Your task to perform on an android device: set an alarm Image 0: 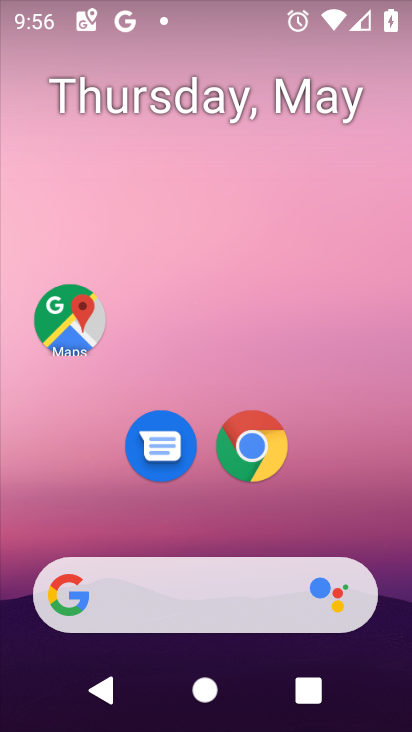
Step 0: drag from (362, 524) to (318, 198)
Your task to perform on an android device: set an alarm Image 1: 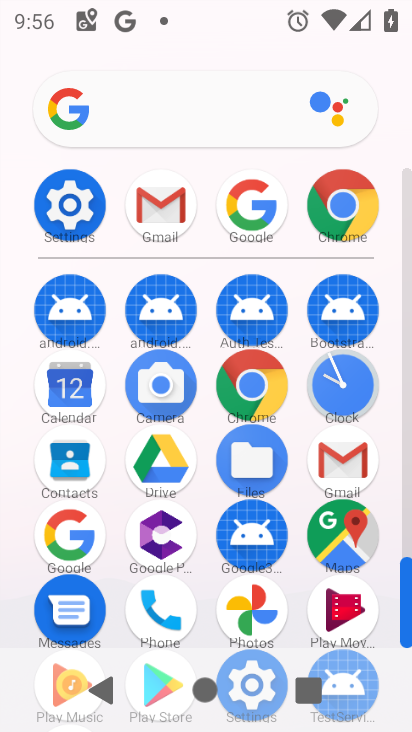
Step 1: click (326, 399)
Your task to perform on an android device: set an alarm Image 2: 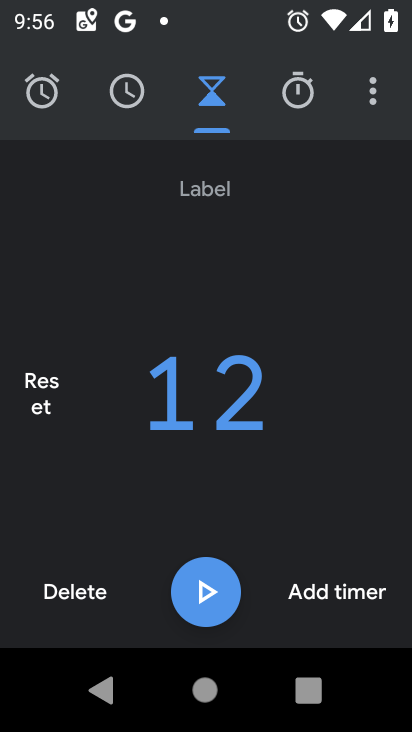
Step 2: click (38, 99)
Your task to perform on an android device: set an alarm Image 3: 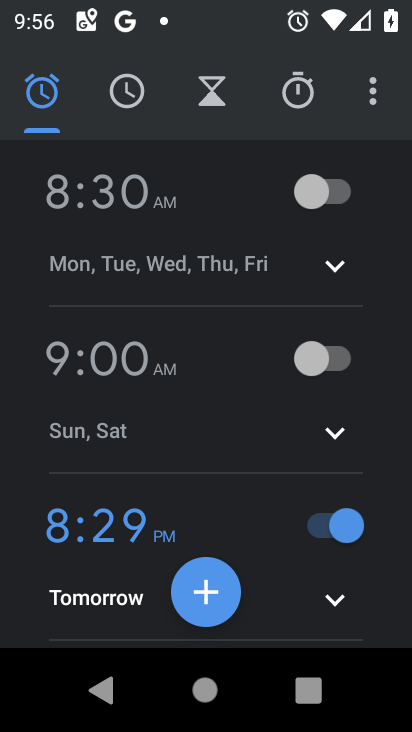
Step 3: click (211, 592)
Your task to perform on an android device: set an alarm Image 4: 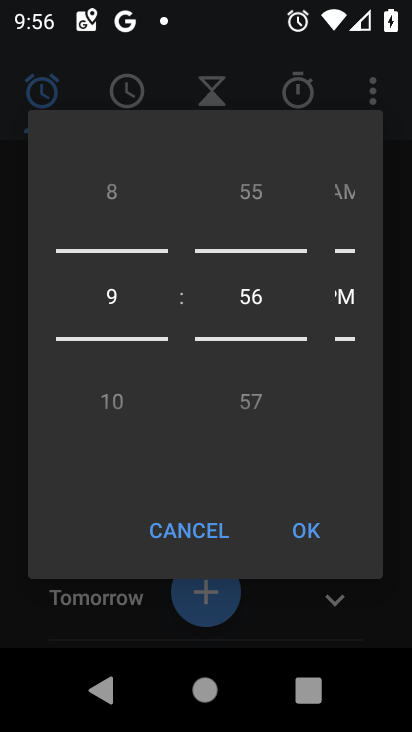
Step 4: click (310, 528)
Your task to perform on an android device: set an alarm Image 5: 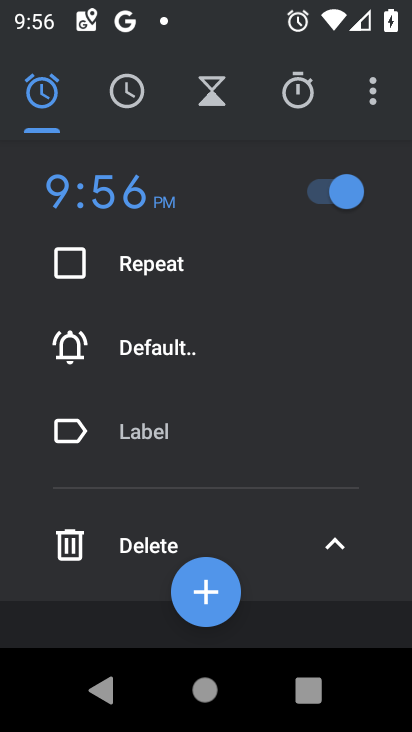
Step 5: task complete